Your task to perform on an android device: Is it going to rain this weekend? Image 0: 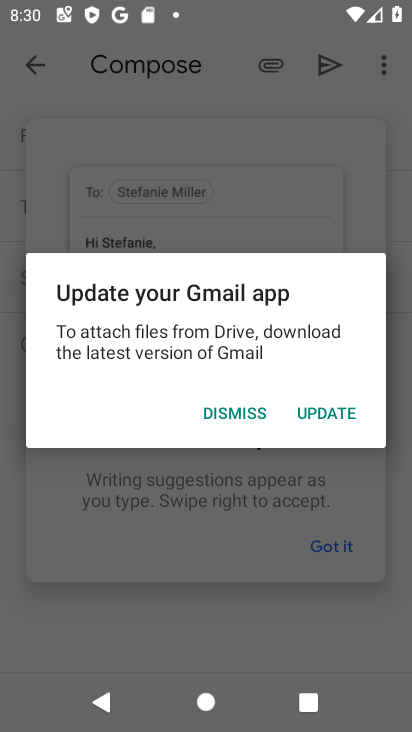
Step 0: press home button
Your task to perform on an android device: Is it going to rain this weekend? Image 1: 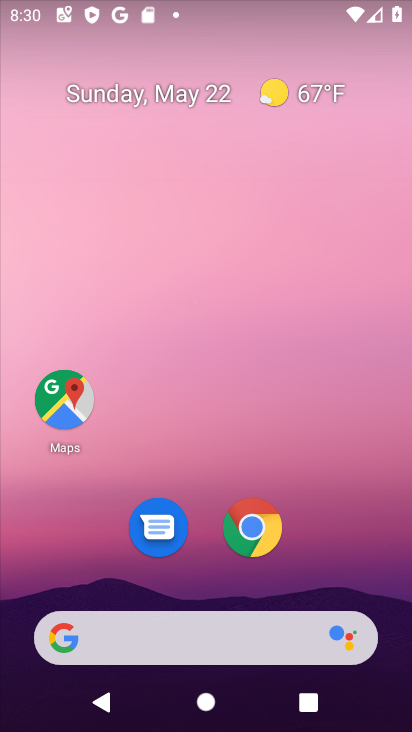
Step 1: click (309, 85)
Your task to perform on an android device: Is it going to rain this weekend? Image 2: 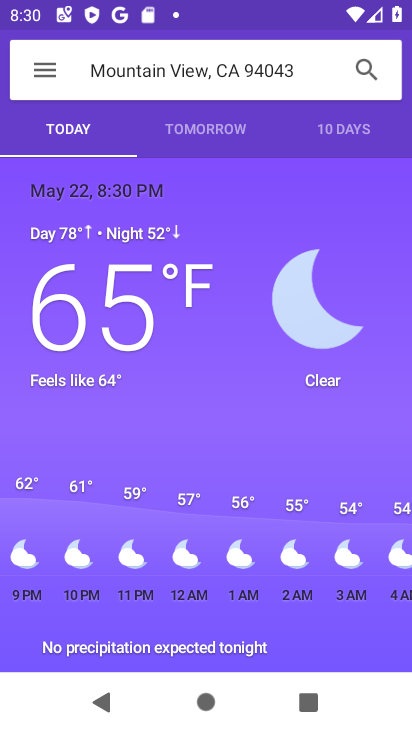
Step 2: click (346, 127)
Your task to perform on an android device: Is it going to rain this weekend? Image 3: 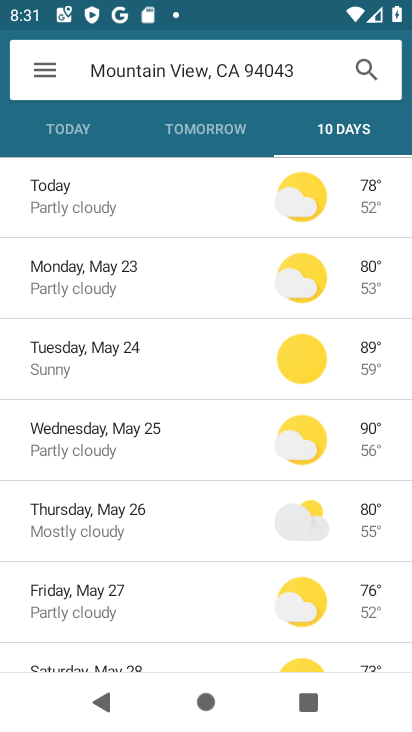
Step 3: task complete